Your task to perform on an android device: Do I have any events tomorrow? Image 0: 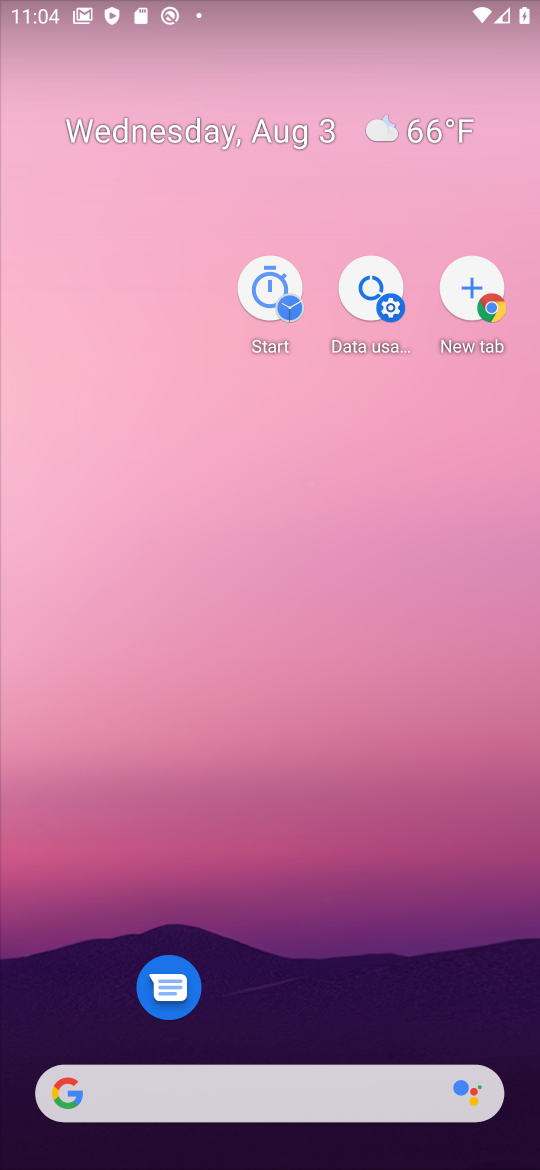
Step 0: click (294, 332)
Your task to perform on an android device: Do I have any events tomorrow? Image 1: 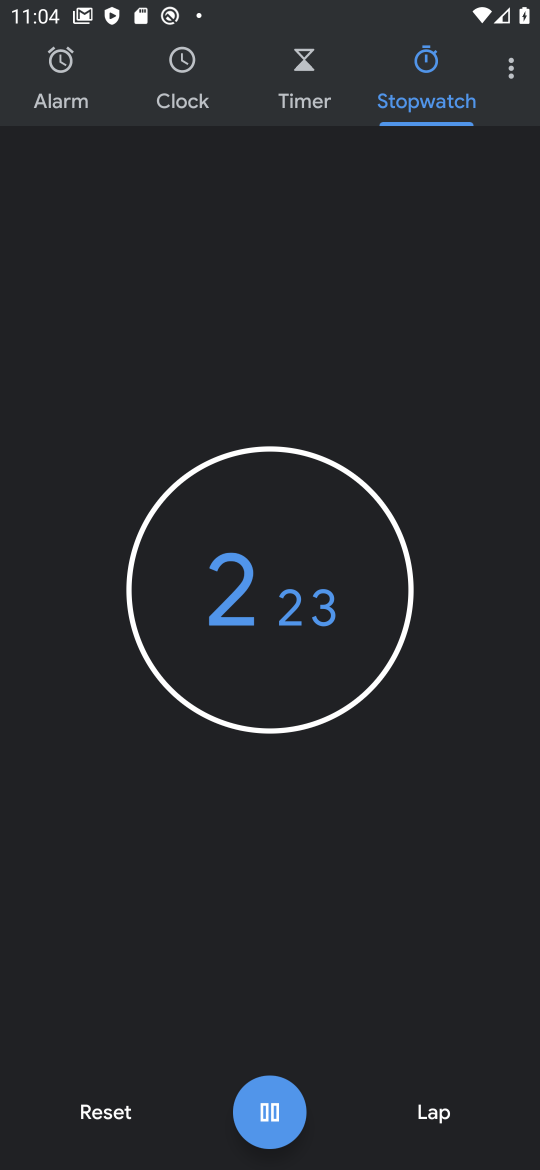
Step 1: drag from (235, 870) to (379, 244)
Your task to perform on an android device: Do I have any events tomorrow? Image 2: 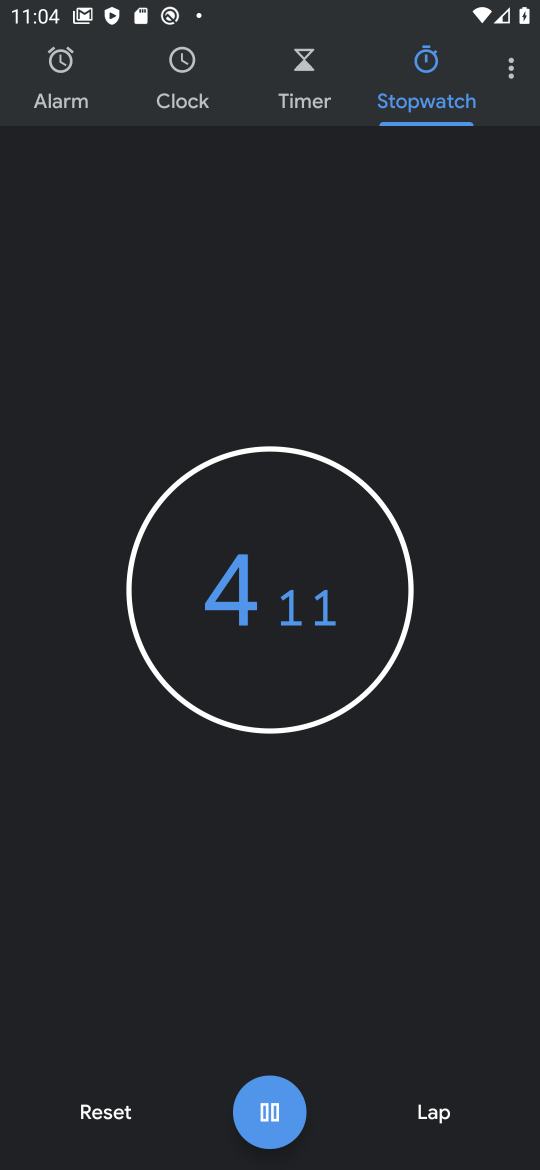
Step 2: drag from (351, 708) to (338, 449)
Your task to perform on an android device: Do I have any events tomorrow? Image 3: 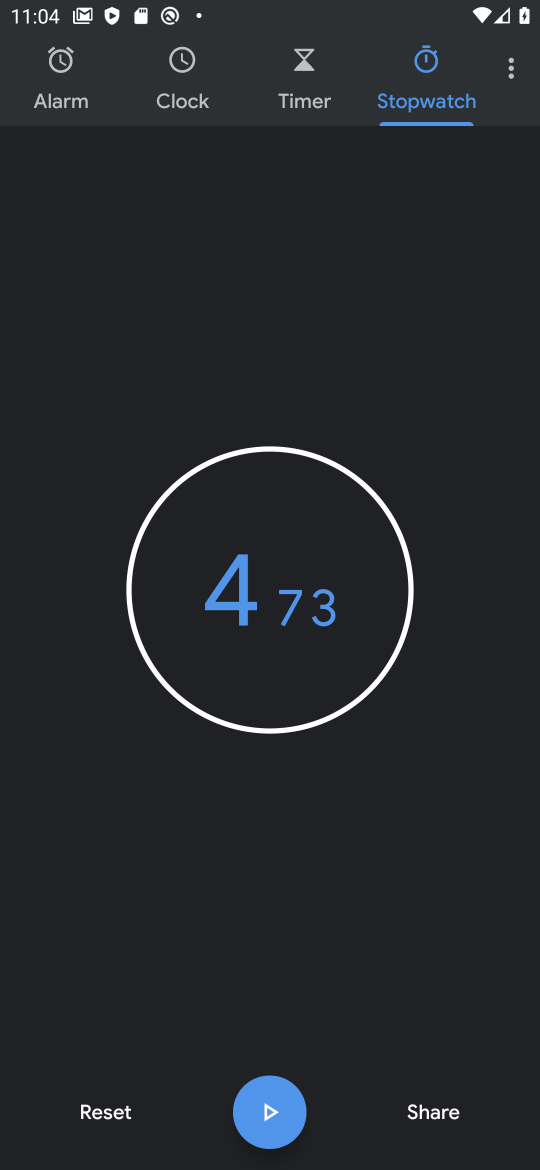
Step 3: drag from (273, 959) to (267, 293)
Your task to perform on an android device: Do I have any events tomorrow? Image 4: 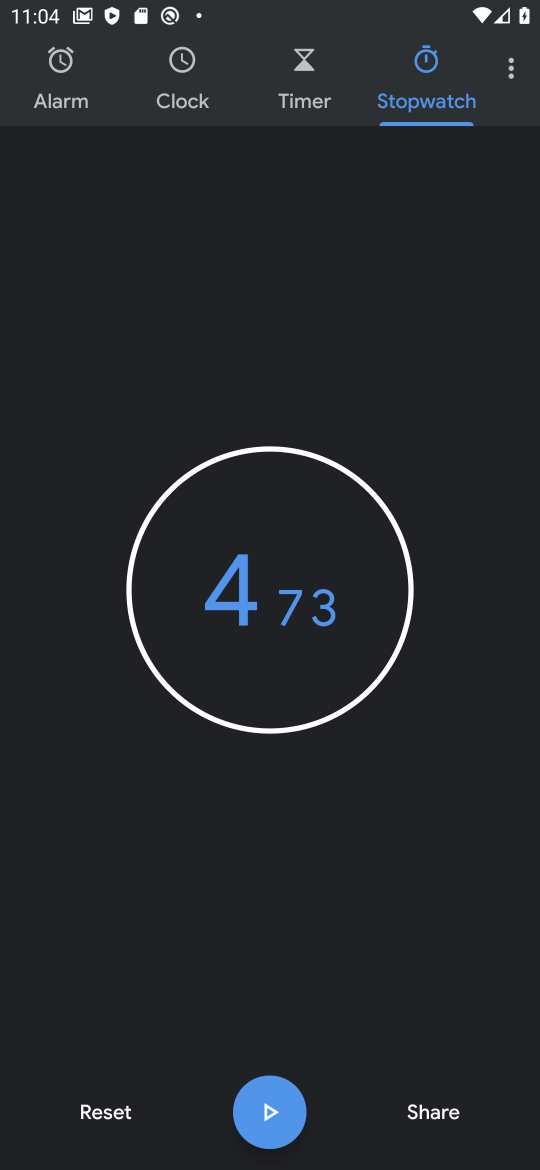
Step 4: drag from (345, 639) to (320, 384)
Your task to perform on an android device: Do I have any events tomorrow? Image 5: 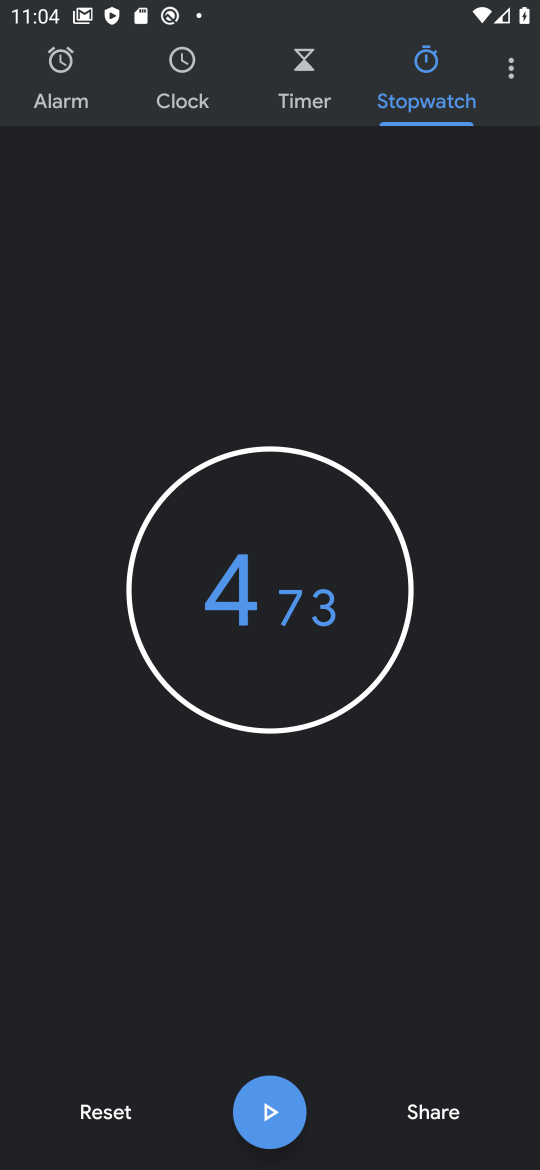
Step 5: drag from (334, 817) to (331, 165)
Your task to perform on an android device: Do I have any events tomorrow? Image 6: 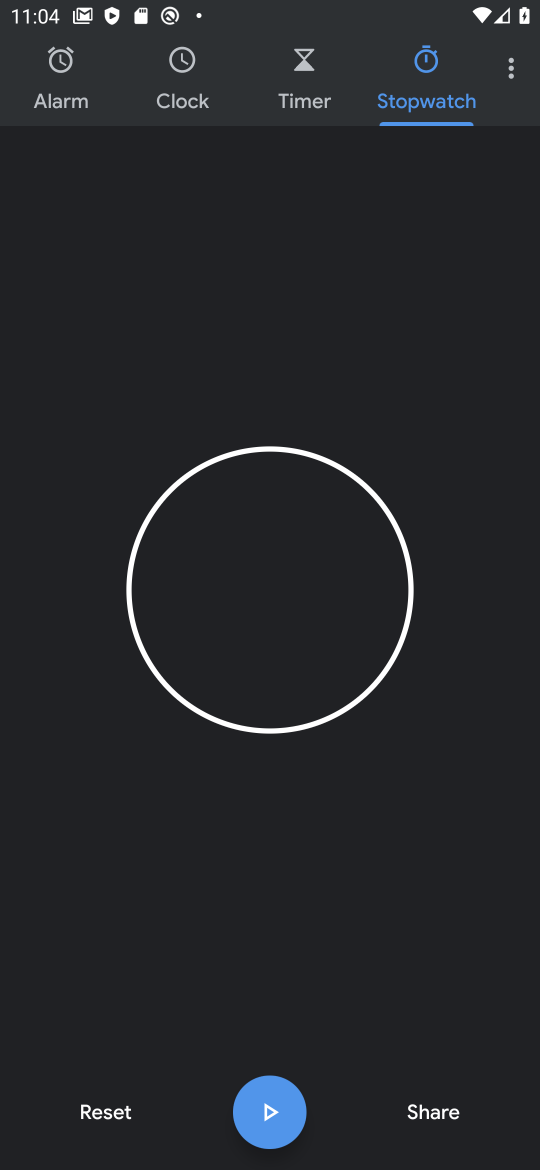
Step 6: press back button
Your task to perform on an android device: Do I have any events tomorrow? Image 7: 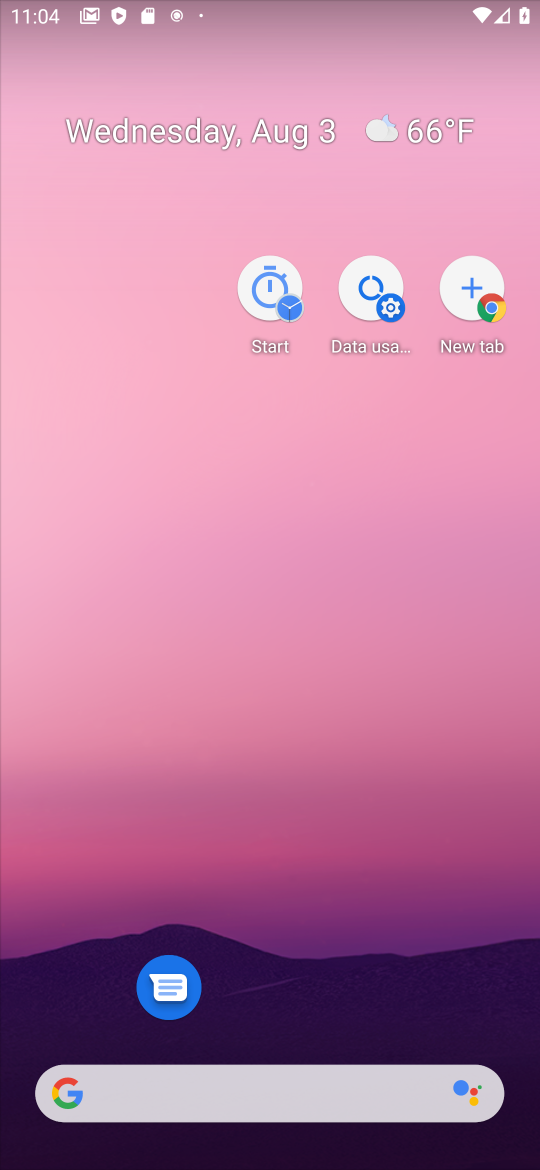
Step 7: drag from (305, 1059) to (302, 241)
Your task to perform on an android device: Do I have any events tomorrow? Image 8: 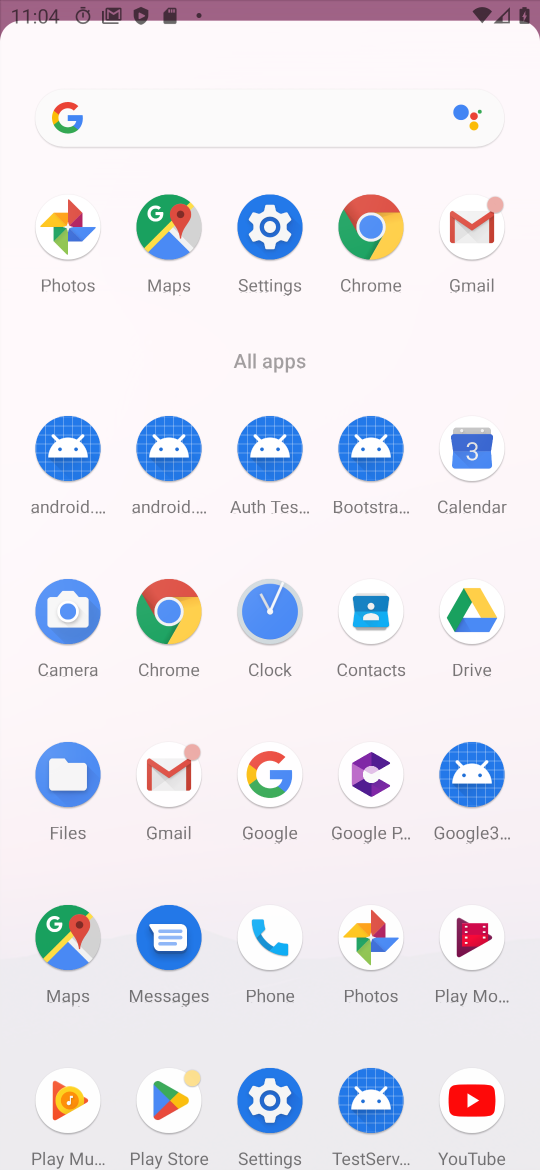
Step 8: click (367, 370)
Your task to perform on an android device: Do I have any events tomorrow? Image 9: 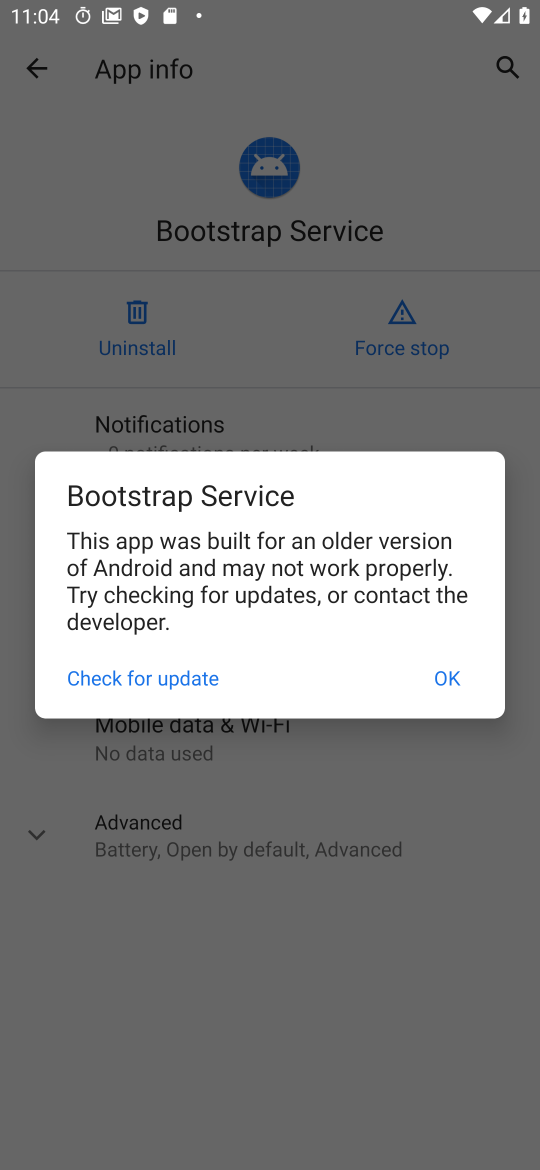
Step 9: click (441, 678)
Your task to perform on an android device: Do I have any events tomorrow? Image 10: 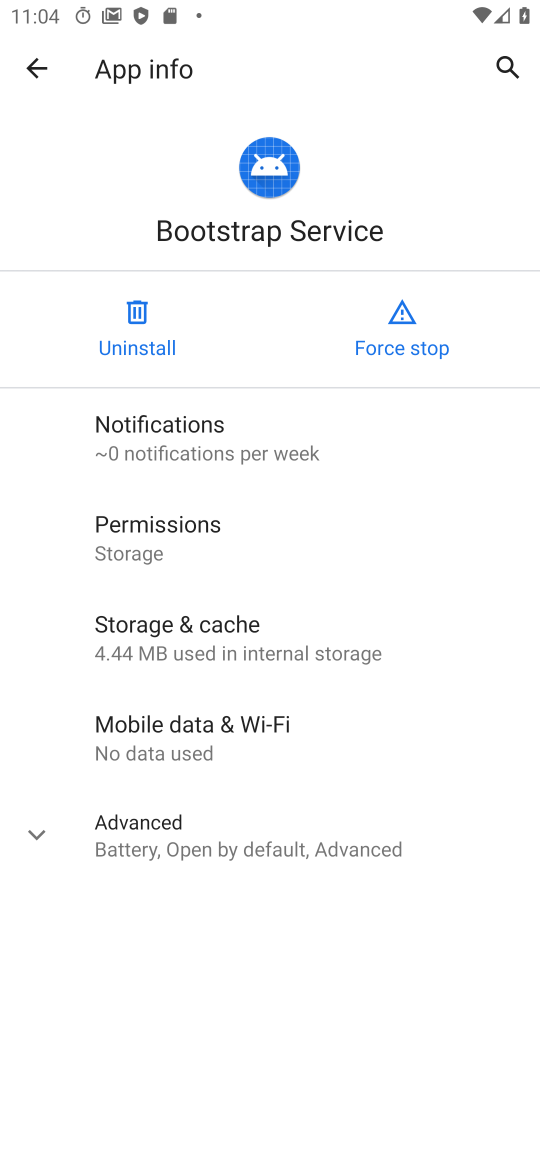
Step 10: click (31, 74)
Your task to perform on an android device: Do I have any events tomorrow? Image 11: 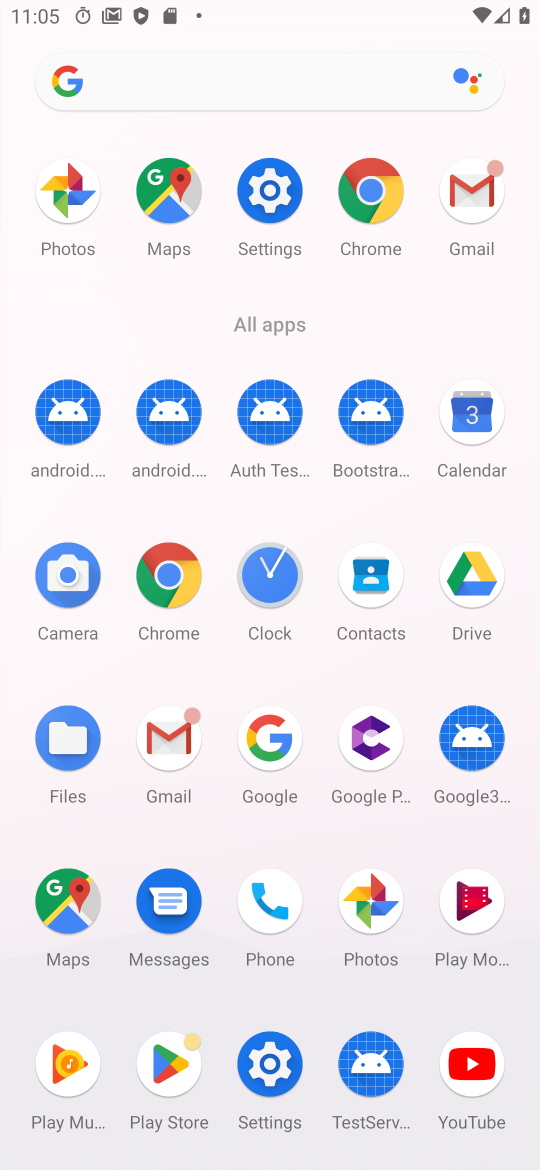
Step 11: click (476, 415)
Your task to perform on an android device: Do I have any events tomorrow? Image 12: 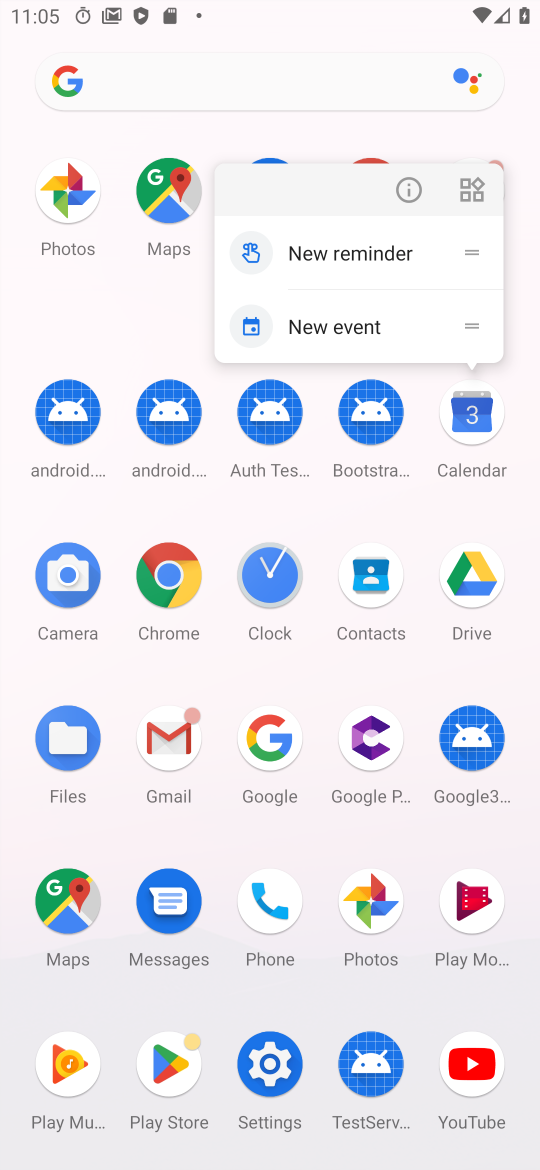
Step 12: click (476, 417)
Your task to perform on an android device: Do I have any events tomorrow? Image 13: 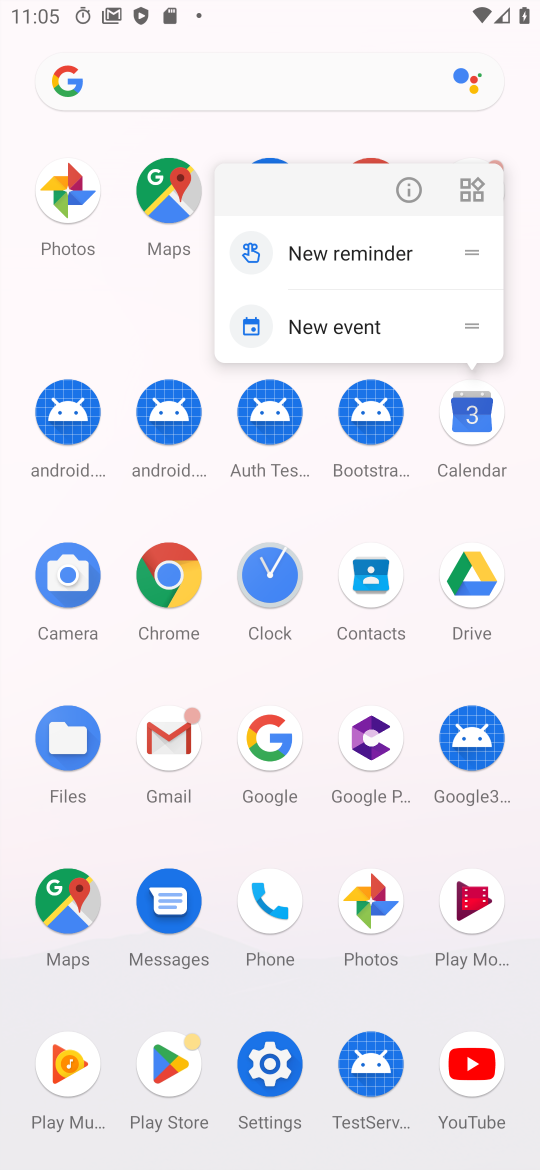
Step 13: click (477, 409)
Your task to perform on an android device: Do I have any events tomorrow? Image 14: 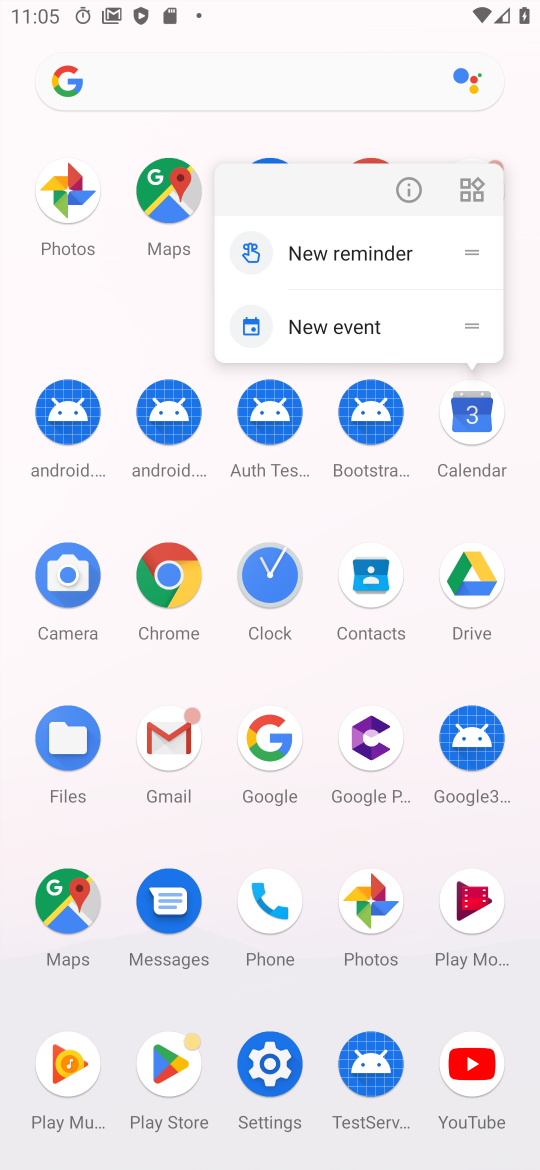
Step 14: click (475, 417)
Your task to perform on an android device: Do I have any events tomorrow? Image 15: 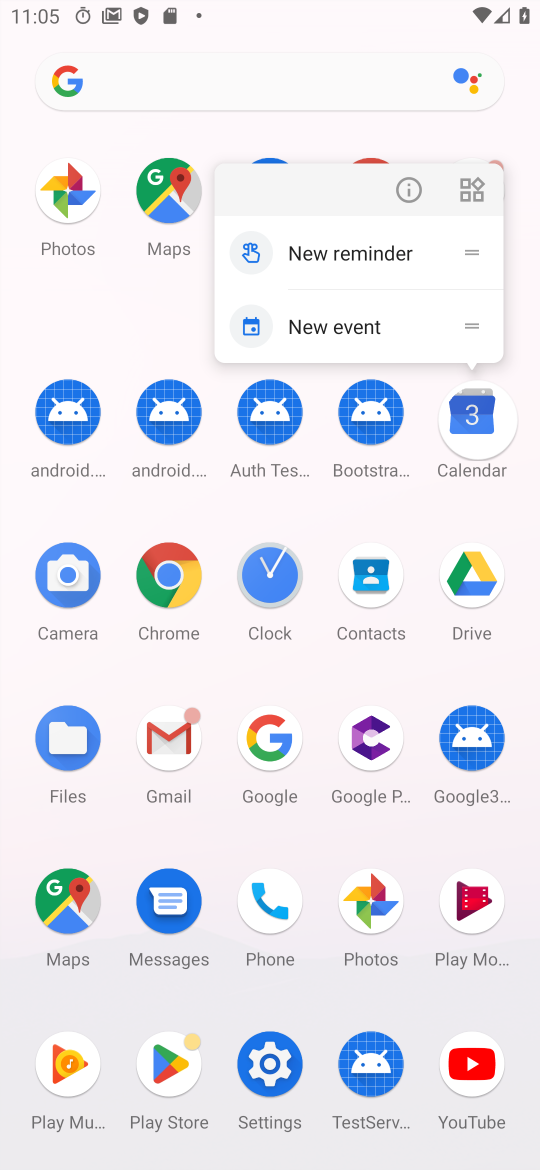
Step 15: click (481, 425)
Your task to perform on an android device: Do I have any events tomorrow? Image 16: 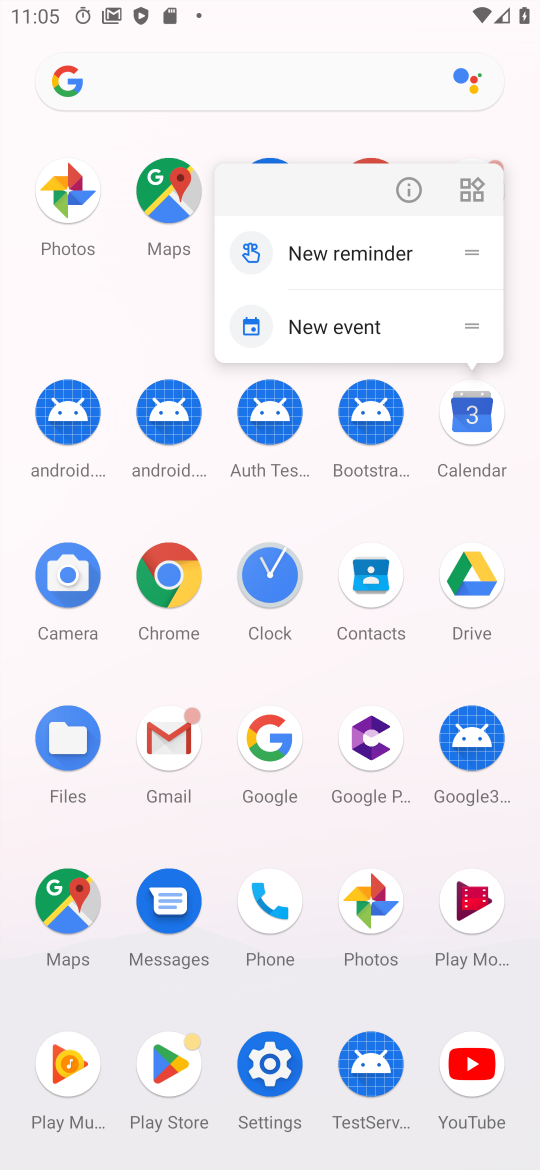
Step 16: click (481, 425)
Your task to perform on an android device: Do I have any events tomorrow? Image 17: 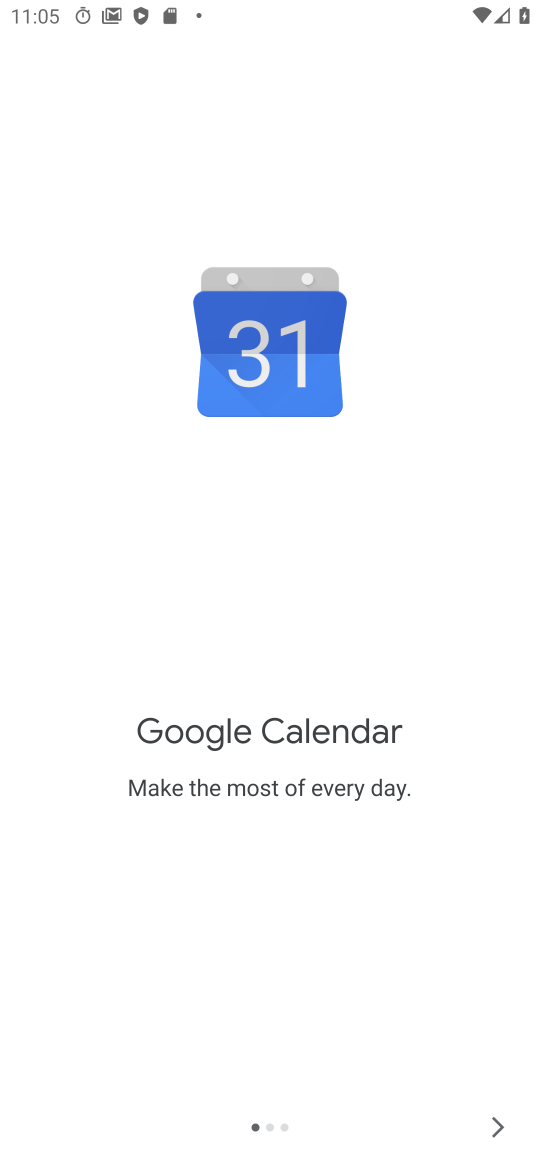
Step 17: click (487, 433)
Your task to perform on an android device: Do I have any events tomorrow? Image 18: 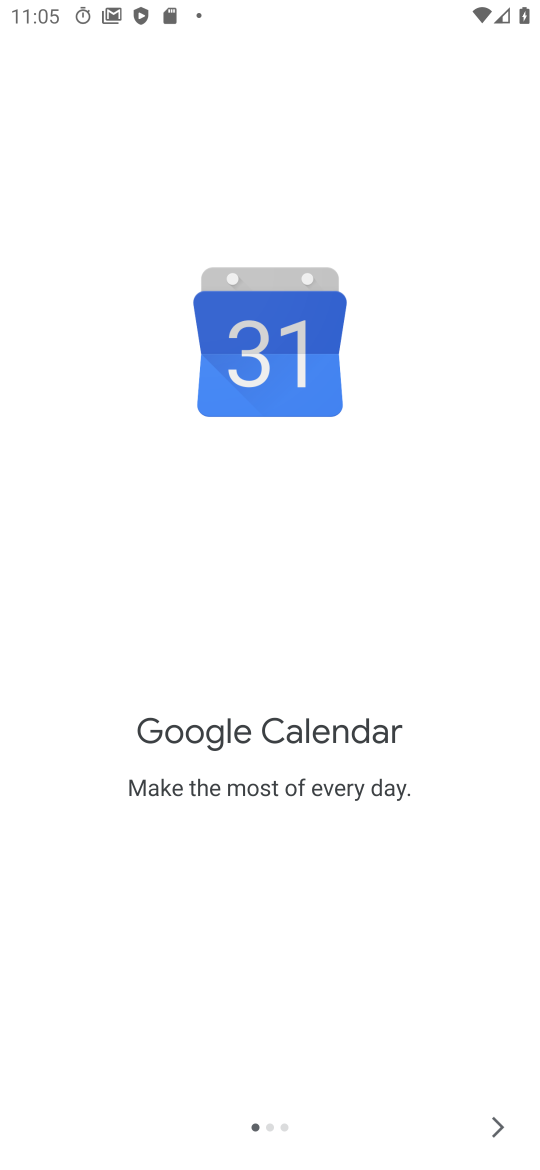
Step 18: click (494, 1120)
Your task to perform on an android device: Do I have any events tomorrow? Image 19: 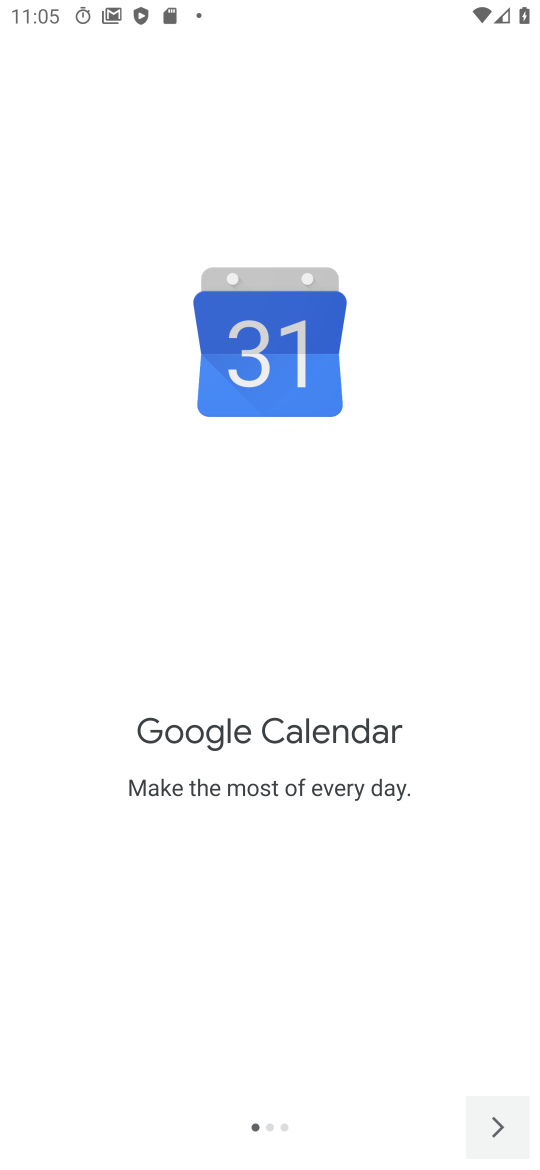
Step 19: click (494, 1120)
Your task to perform on an android device: Do I have any events tomorrow? Image 20: 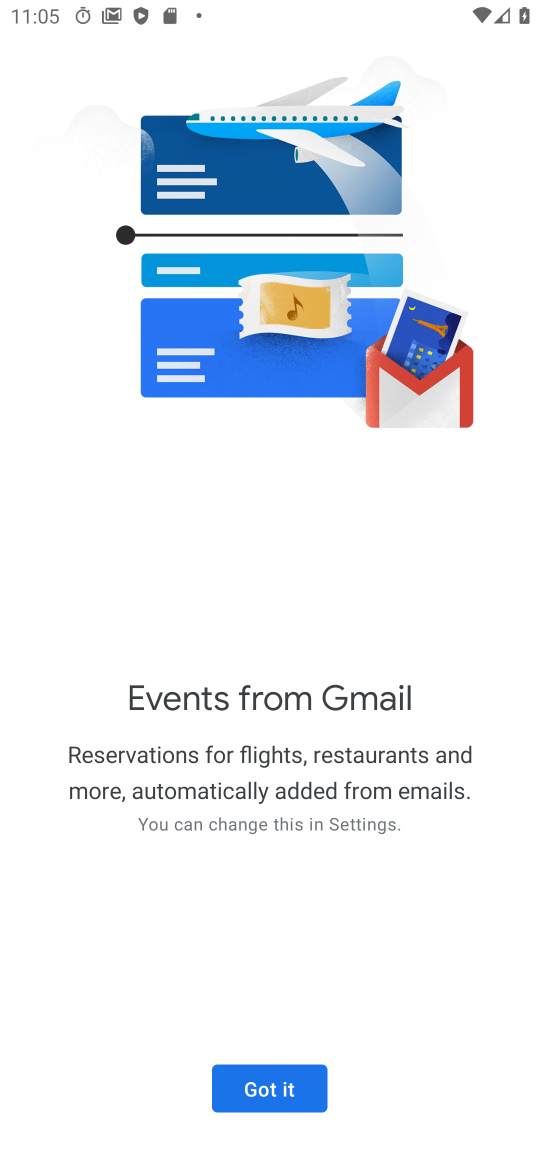
Step 20: click (289, 1100)
Your task to perform on an android device: Do I have any events tomorrow? Image 21: 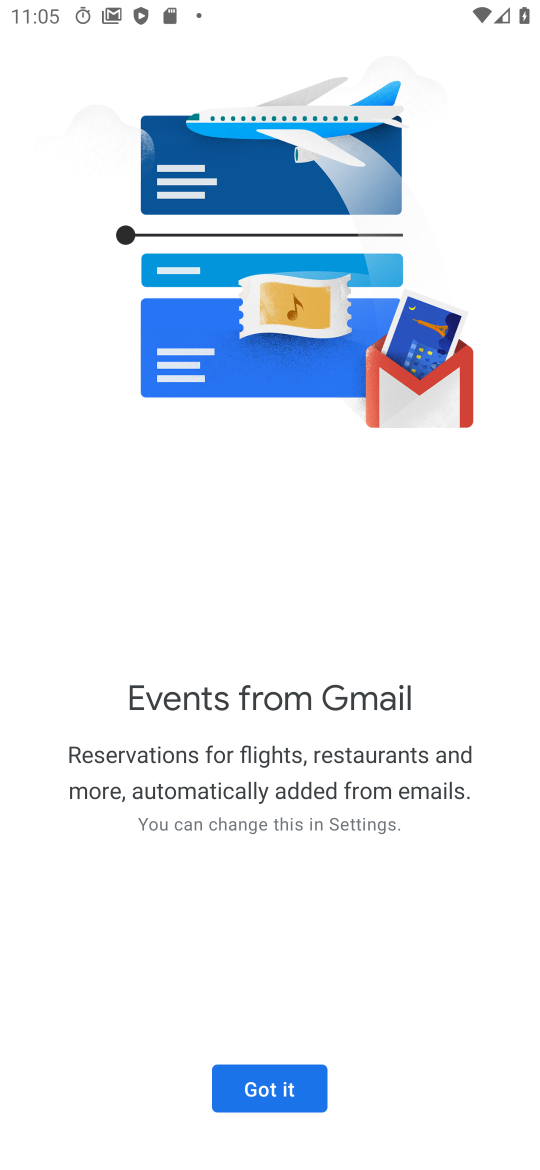
Step 21: click (289, 1100)
Your task to perform on an android device: Do I have any events tomorrow? Image 22: 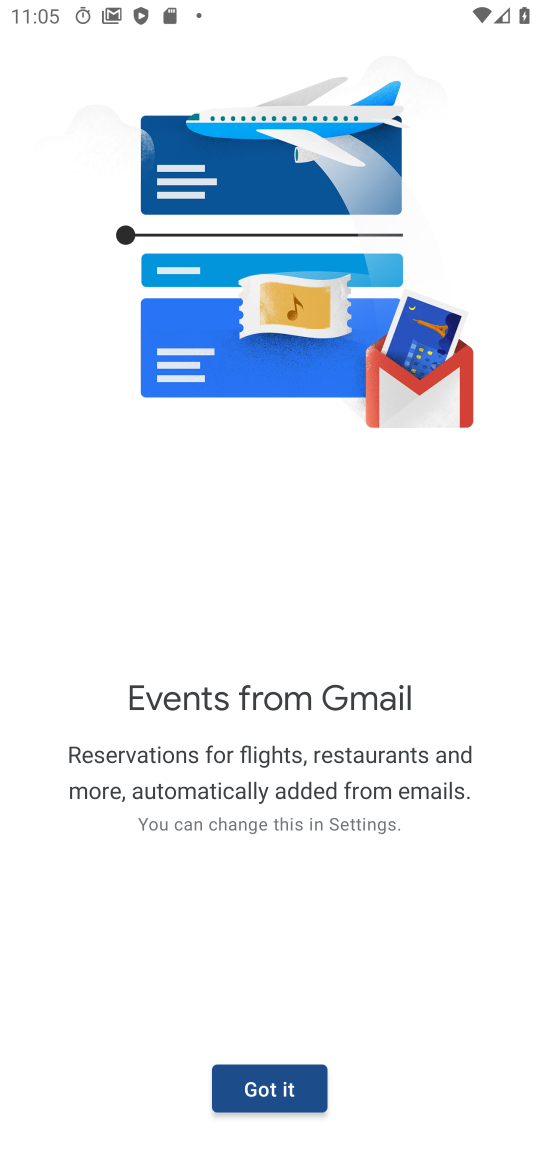
Step 22: click (289, 1100)
Your task to perform on an android device: Do I have any events tomorrow? Image 23: 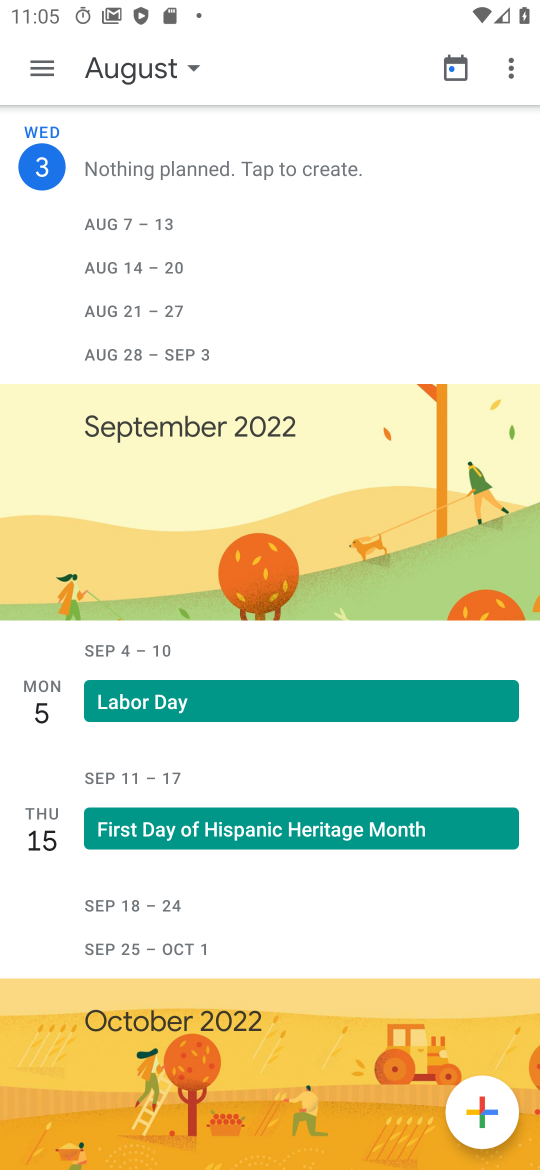
Step 23: click (192, 52)
Your task to perform on an android device: Do I have any events tomorrow? Image 24: 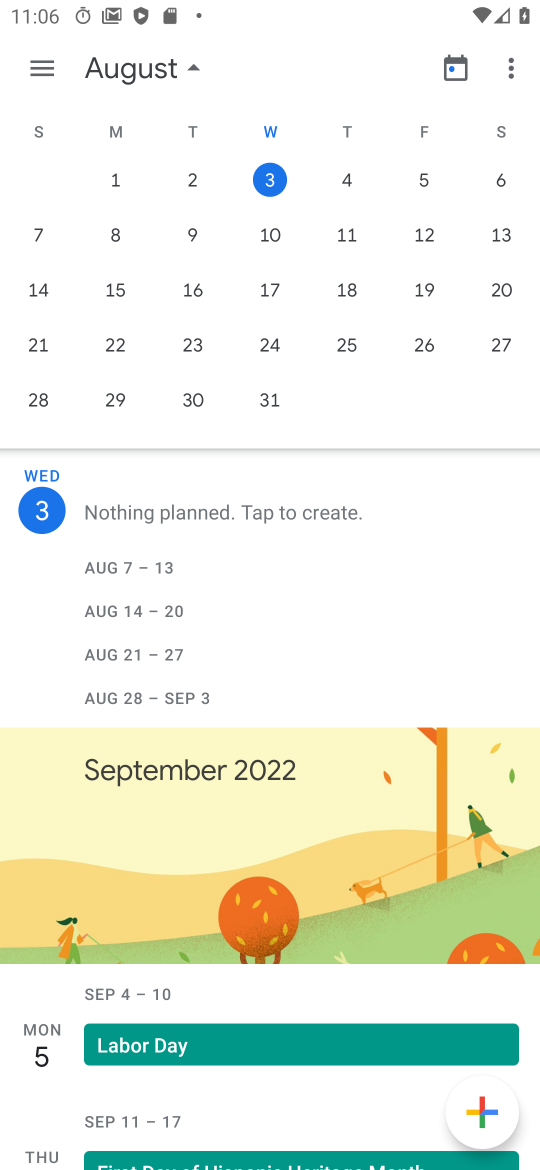
Step 24: click (425, 182)
Your task to perform on an android device: Do I have any events tomorrow? Image 25: 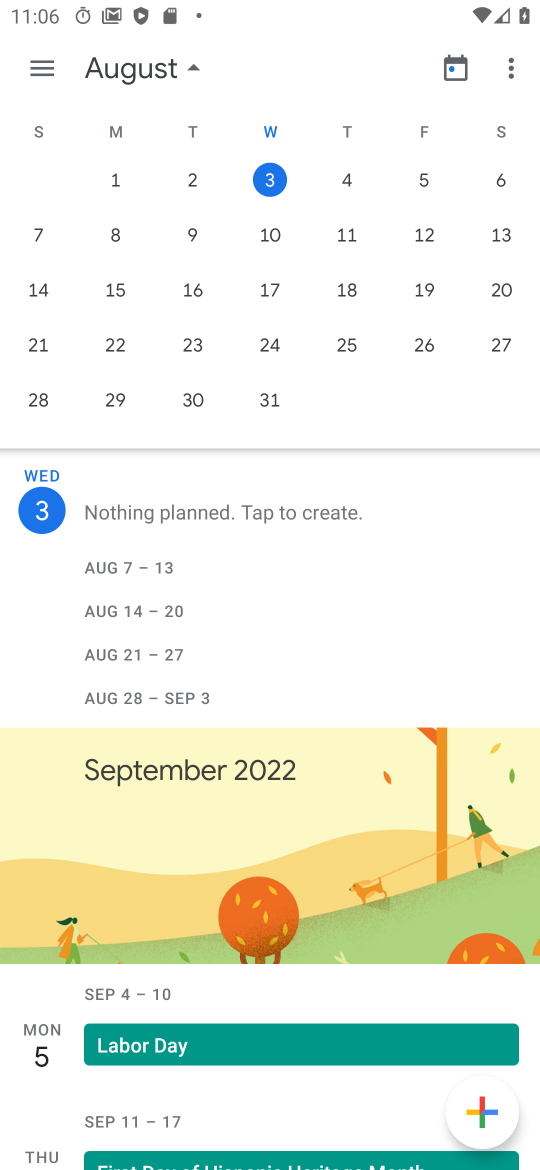
Step 25: click (422, 180)
Your task to perform on an android device: Do I have any events tomorrow? Image 26: 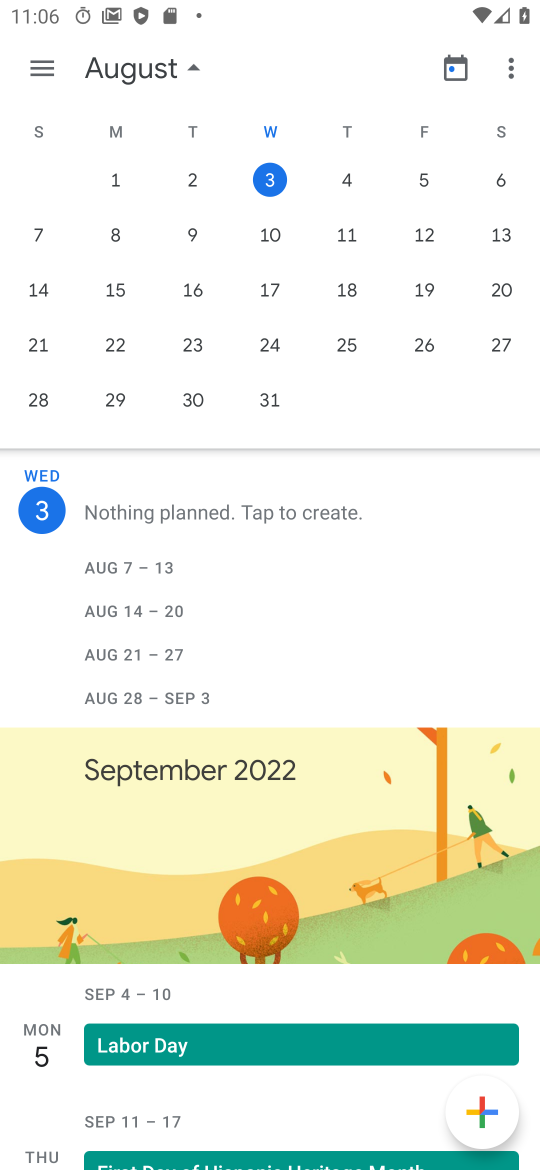
Step 26: click (423, 180)
Your task to perform on an android device: Do I have any events tomorrow? Image 27: 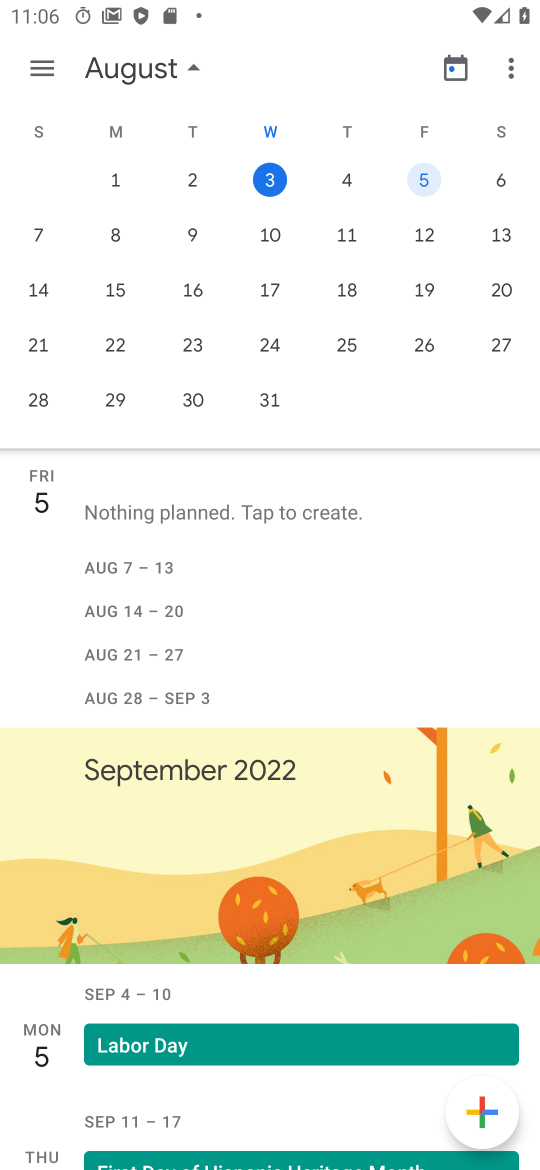
Step 27: click (425, 176)
Your task to perform on an android device: Do I have any events tomorrow? Image 28: 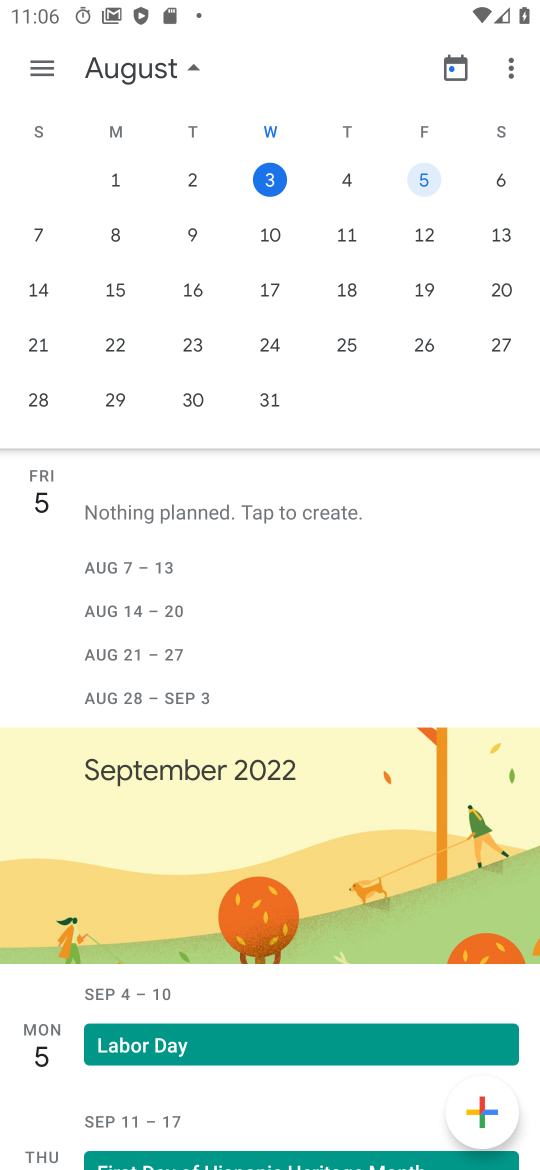
Step 28: task complete